Your task to perform on an android device: open a new tab in the chrome app Image 0: 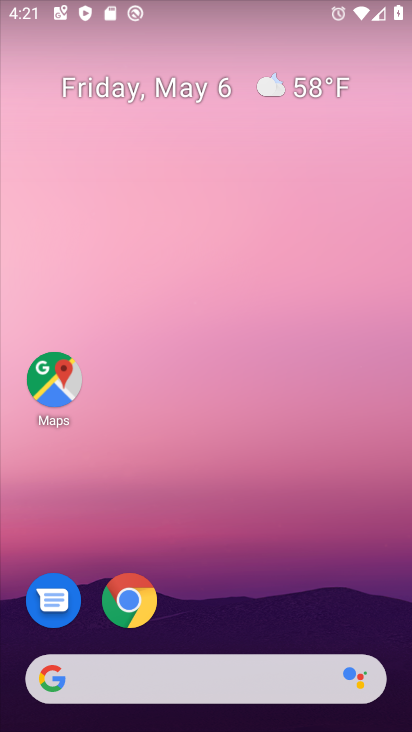
Step 0: click (137, 596)
Your task to perform on an android device: open a new tab in the chrome app Image 1: 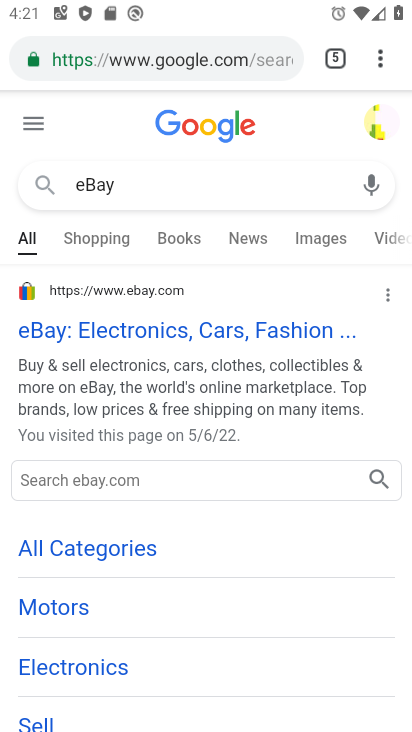
Step 1: click (372, 57)
Your task to perform on an android device: open a new tab in the chrome app Image 2: 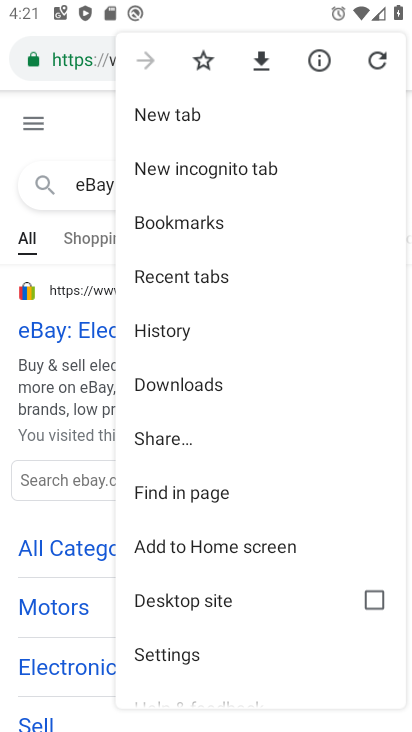
Step 2: click (183, 110)
Your task to perform on an android device: open a new tab in the chrome app Image 3: 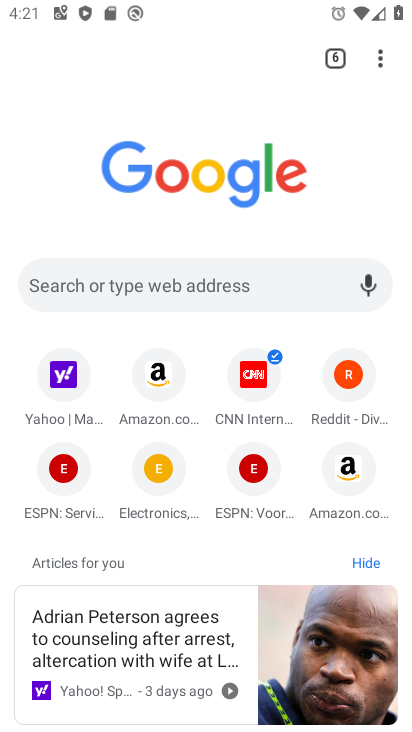
Step 3: task complete